Your task to perform on an android device: Open CNN.com Image 0: 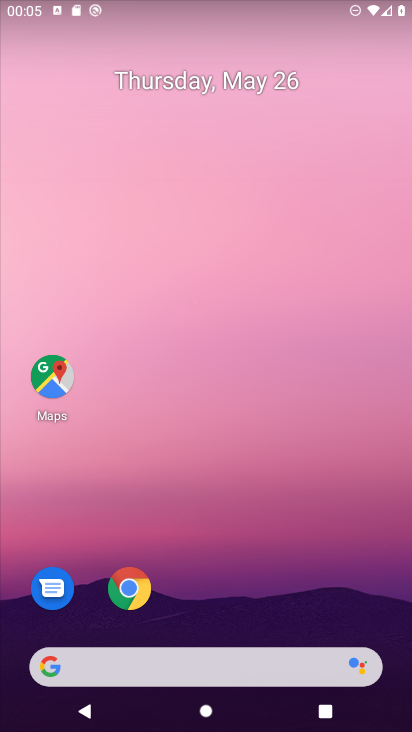
Step 0: press home button
Your task to perform on an android device: Open CNN.com Image 1: 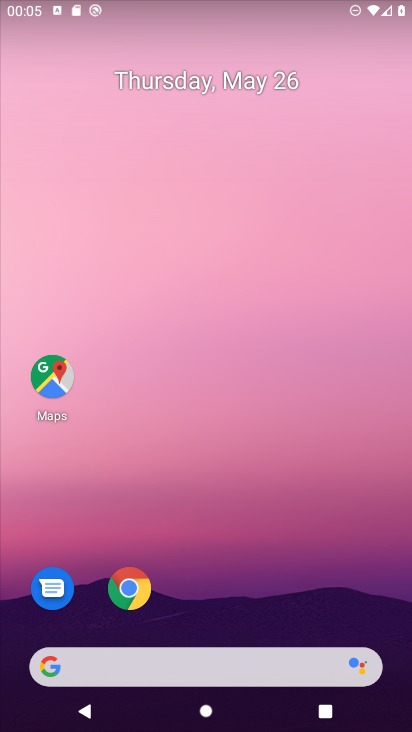
Step 1: click (122, 591)
Your task to perform on an android device: Open CNN.com Image 2: 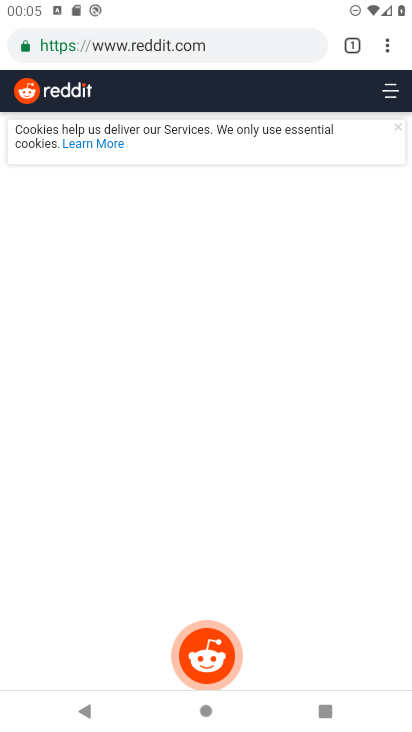
Step 2: type "CNN.com"
Your task to perform on an android device: Open CNN.com Image 3: 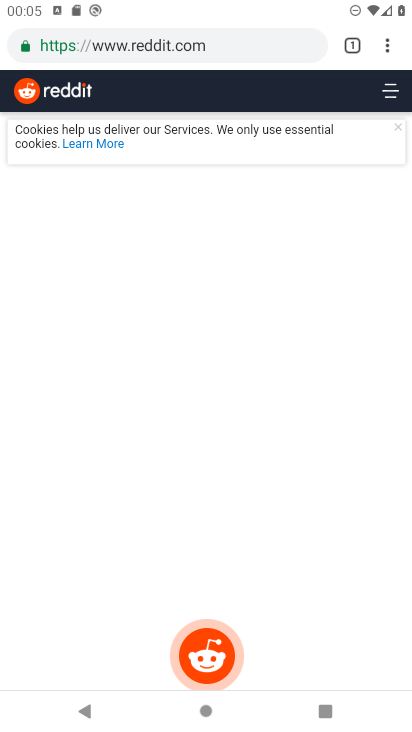
Step 3: click (263, 43)
Your task to perform on an android device: Open CNN.com Image 4: 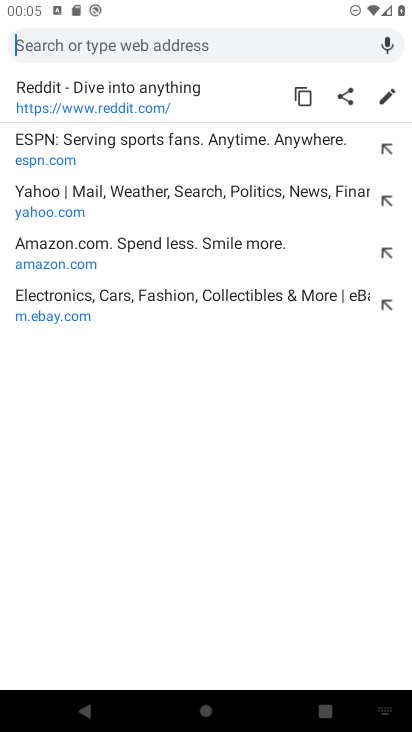
Step 4: type "CNN.com"
Your task to perform on an android device: Open CNN.com Image 5: 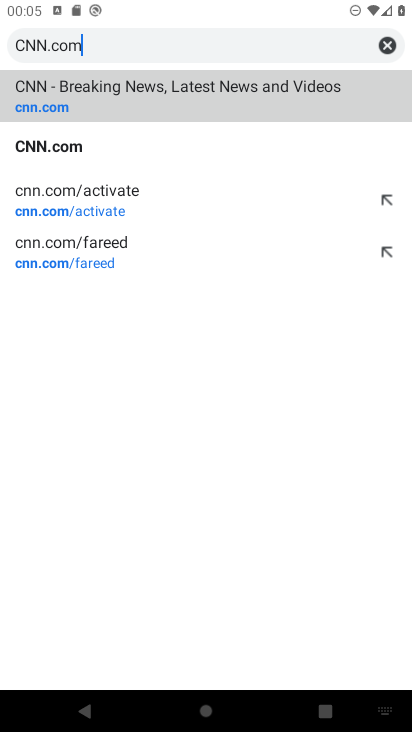
Step 5: type ""
Your task to perform on an android device: Open CNN.com Image 6: 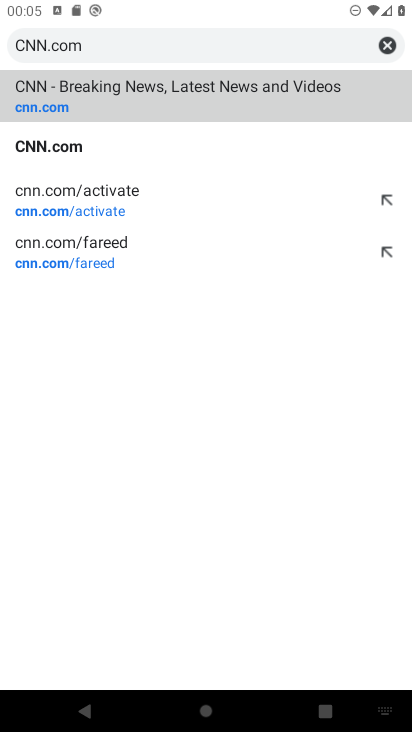
Step 6: click (98, 139)
Your task to perform on an android device: Open CNN.com Image 7: 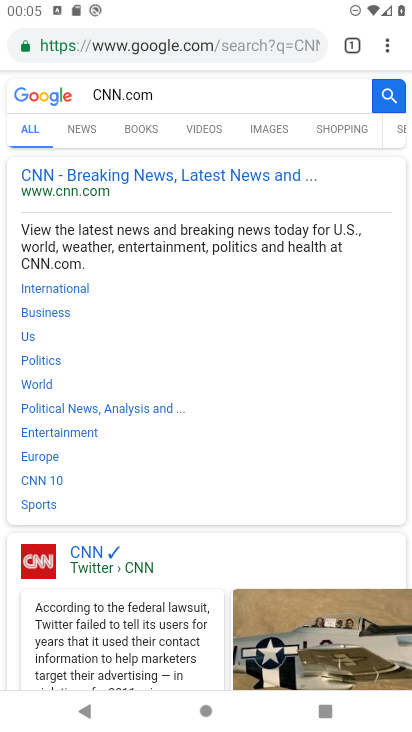
Step 7: task complete